Your task to perform on an android device: Go to Amazon Image 0: 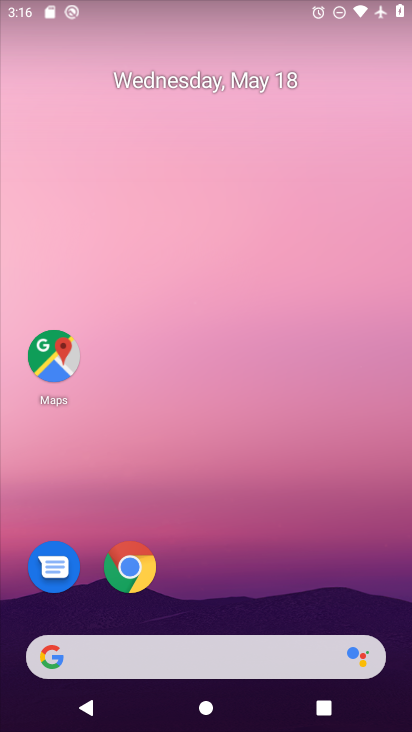
Step 0: click (136, 551)
Your task to perform on an android device: Go to Amazon Image 1: 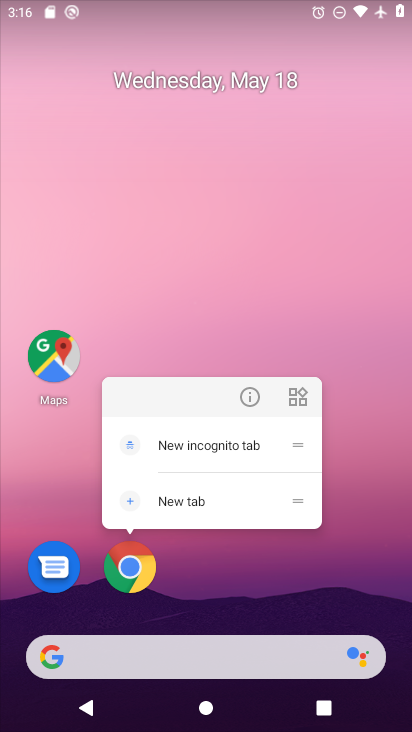
Step 1: click (141, 557)
Your task to perform on an android device: Go to Amazon Image 2: 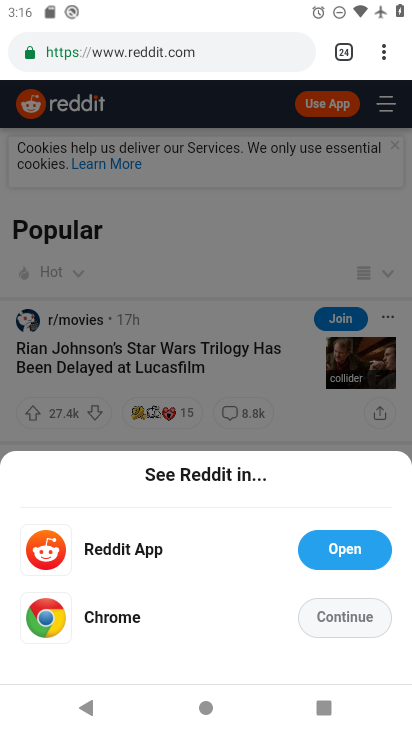
Step 2: click (377, 56)
Your task to perform on an android device: Go to Amazon Image 3: 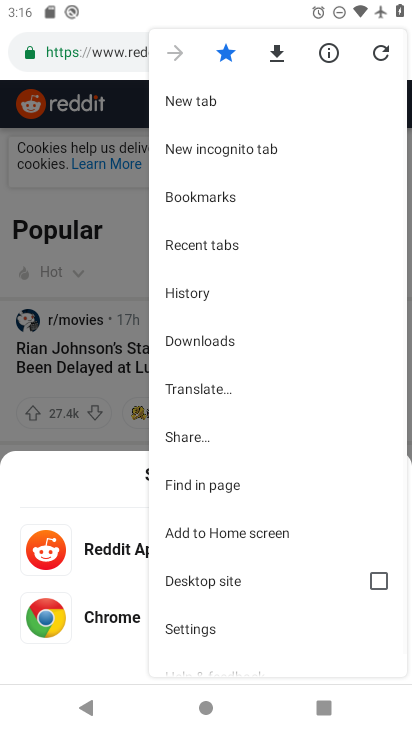
Step 3: click (224, 97)
Your task to perform on an android device: Go to Amazon Image 4: 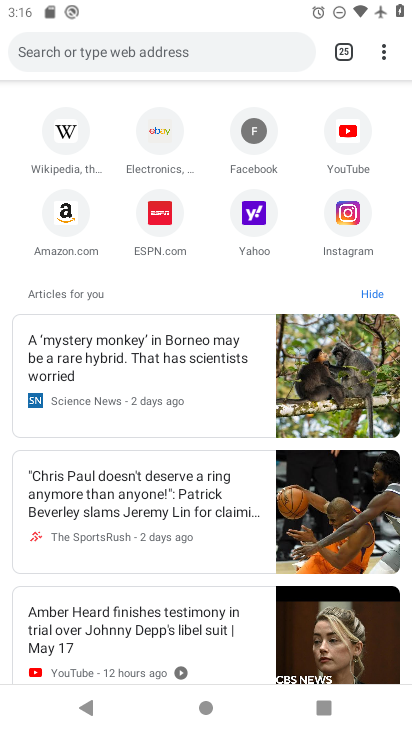
Step 4: click (68, 202)
Your task to perform on an android device: Go to Amazon Image 5: 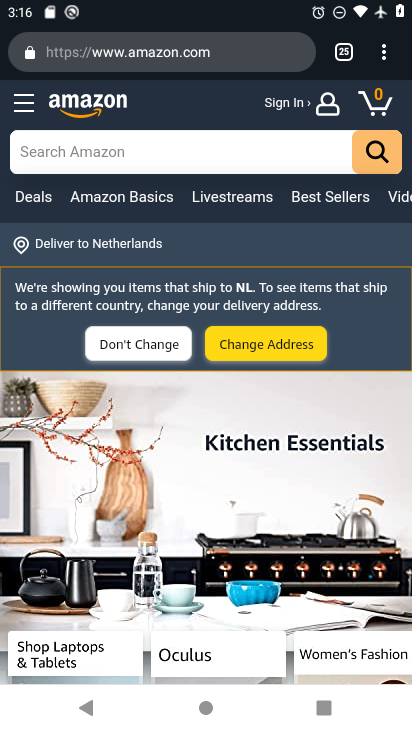
Step 5: task complete